Your task to perform on an android device: Open Google Chrome Image 0: 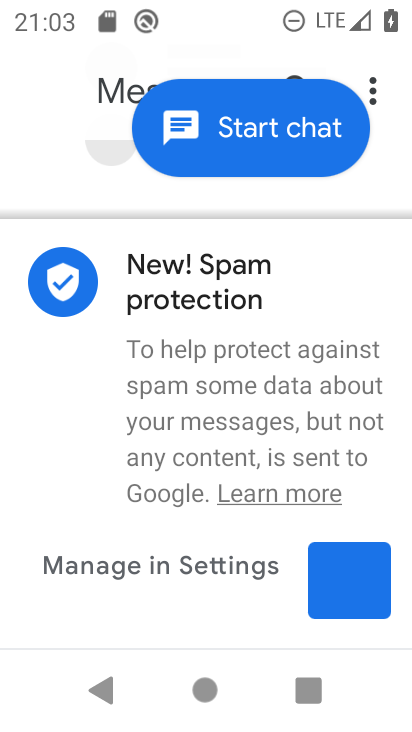
Step 0: press home button
Your task to perform on an android device: Open Google Chrome Image 1: 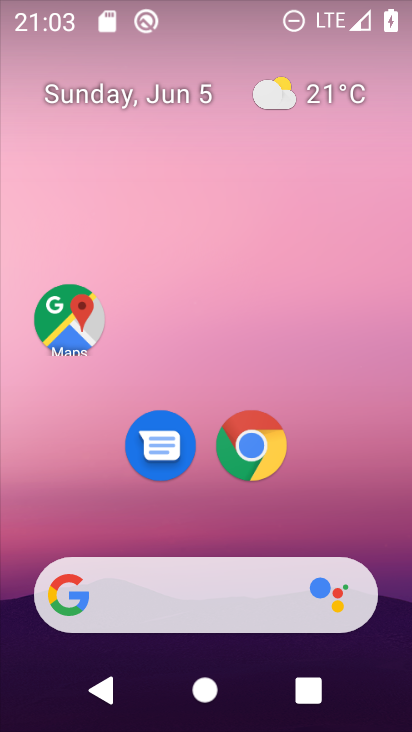
Step 1: click (257, 446)
Your task to perform on an android device: Open Google Chrome Image 2: 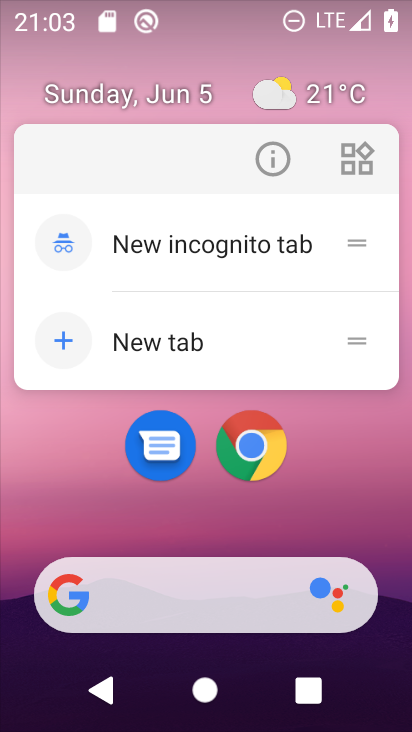
Step 2: click (249, 456)
Your task to perform on an android device: Open Google Chrome Image 3: 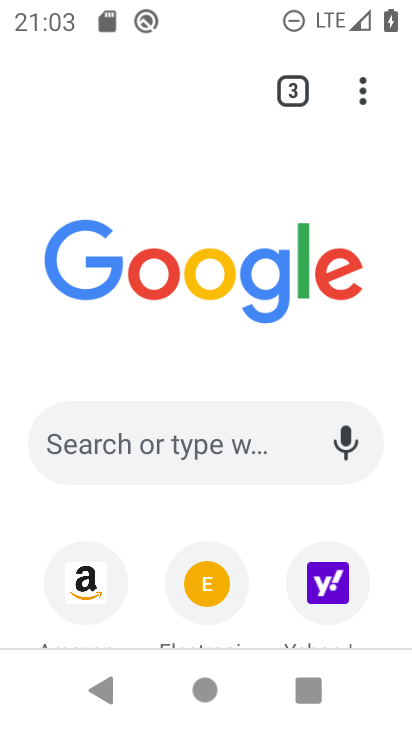
Step 3: task complete